Your task to perform on an android device: Open Google Chrome Image 0: 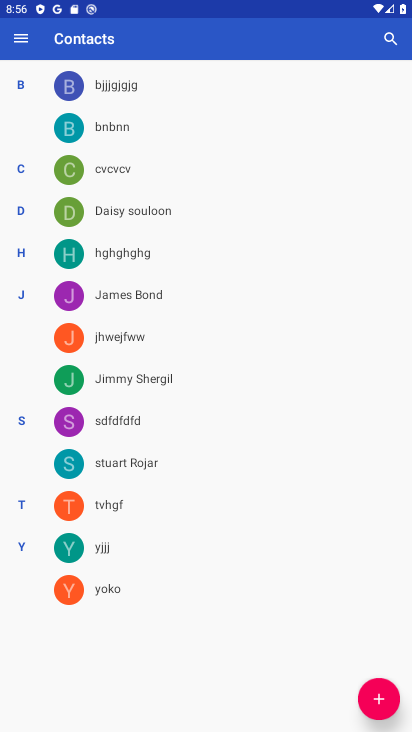
Step 0: press home button
Your task to perform on an android device: Open Google Chrome Image 1: 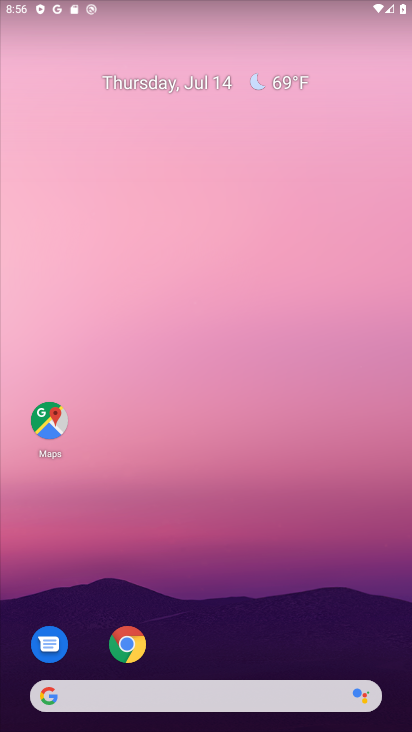
Step 1: click (128, 638)
Your task to perform on an android device: Open Google Chrome Image 2: 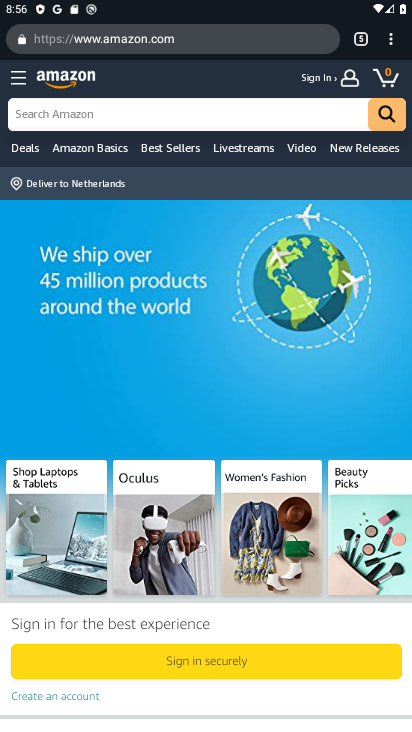
Step 2: task complete